Your task to perform on an android device: turn on translation in the chrome app Image 0: 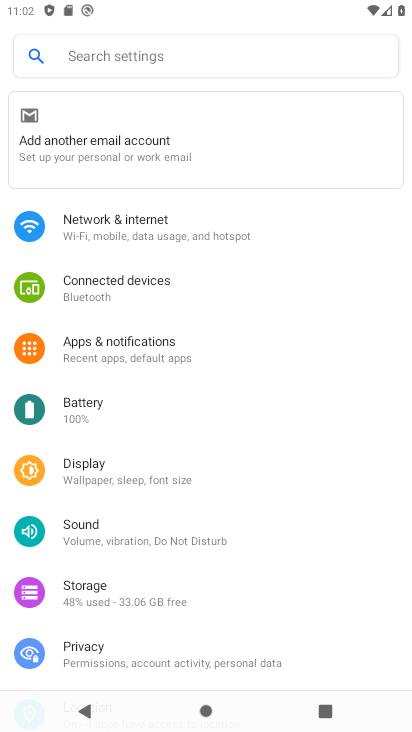
Step 0: press home button
Your task to perform on an android device: turn on translation in the chrome app Image 1: 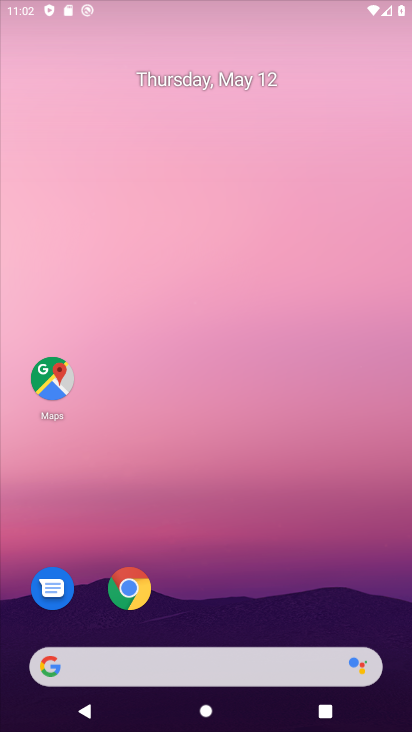
Step 1: drag from (246, 612) to (255, 104)
Your task to perform on an android device: turn on translation in the chrome app Image 2: 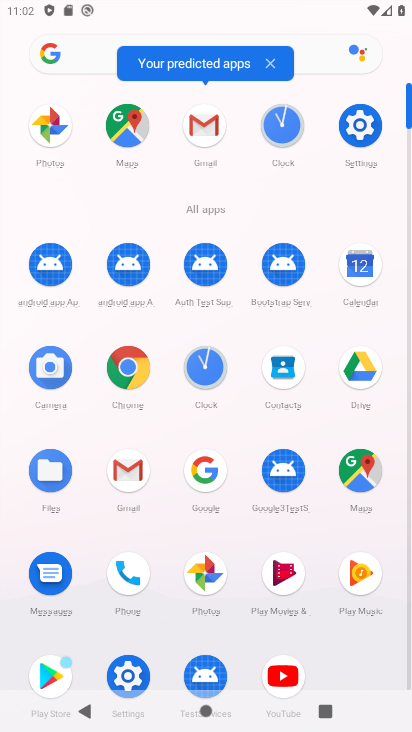
Step 2: click (127, 377)
Your task to perform on an android device: turn on translation in the chrome app Image 3: 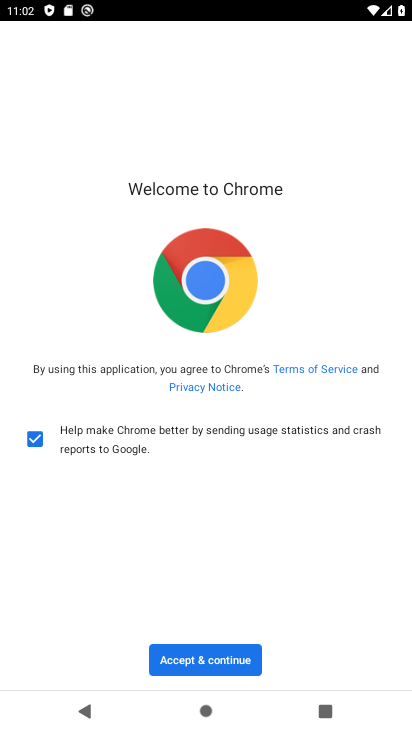
Step 3: click (212, 661)
Your task to perform on an android device: turn on translation in the chrome app Image 4: 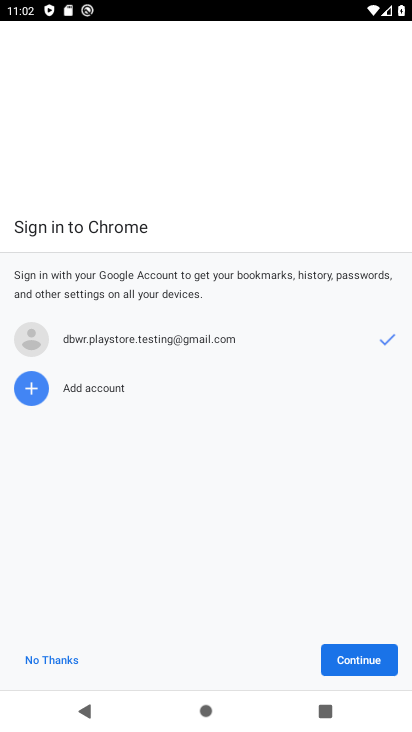
Step 4: click (358, 656)
Your task to perform on an android device: turn on translation in the chrome app Image 5: 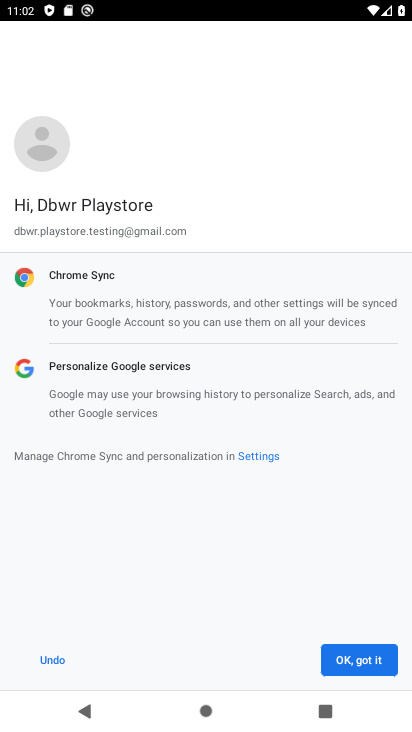
Step 5: click (355, 667)
Your task to perform on an android device: turn on translation in the chrome app Image 6: 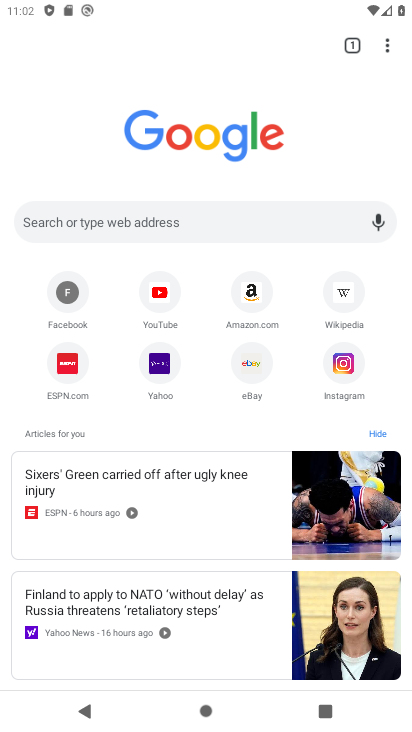
Step 6: click (386, 39)
Your task to perform on an android device: turn on translation in the chrome app Image 7: 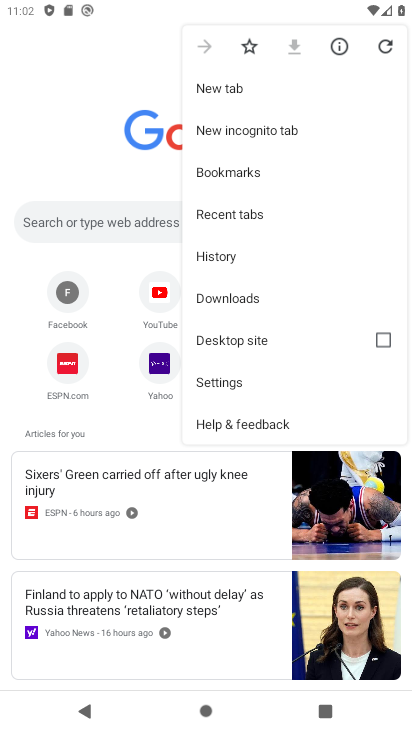
Step 7: click (242, 381)
Your task to perform on an android device: turn on translation in the chrome app Image 8: 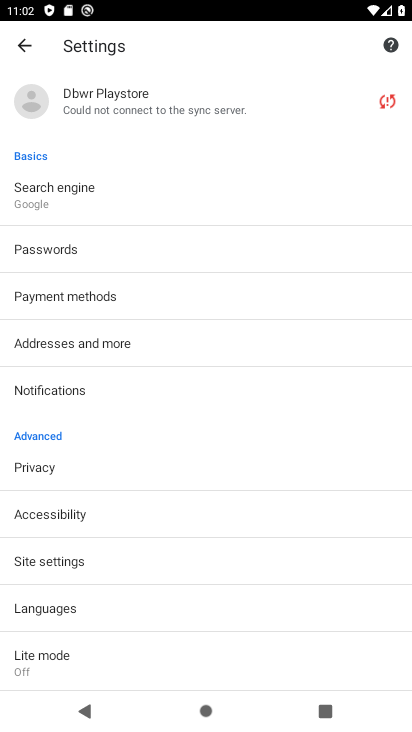
Step 8: click (85, 612)
Your task to perform on an android device: turn on translation in the chrome app Image 9: 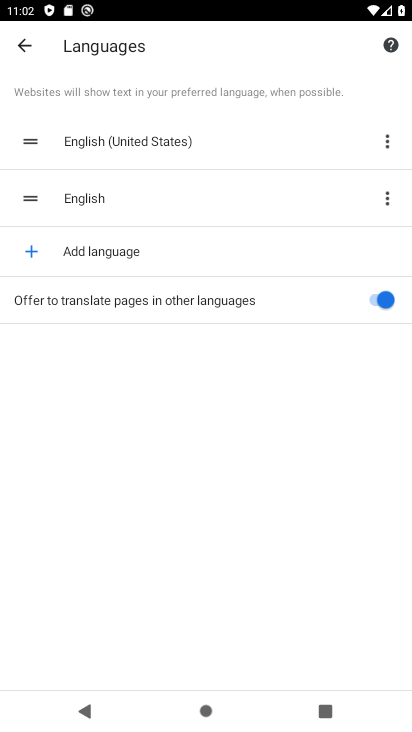
Step 9: click (299, 306)
Your task to perform on an android device: turn on translation in the chrome app Image 10: 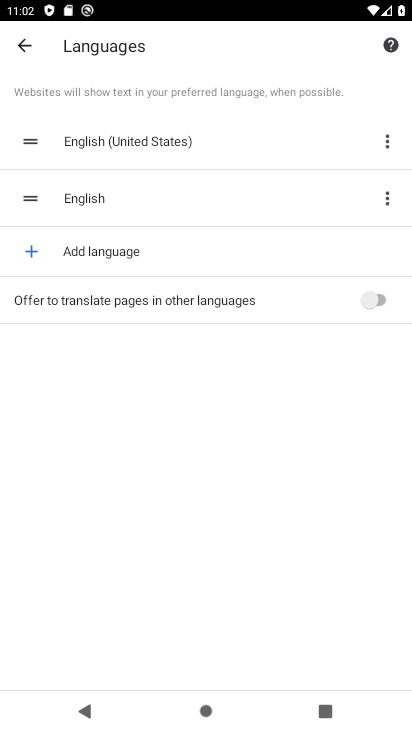
Step 10: task complete